Your task to perform on an android device: turn off improve location accuracy Image 0: 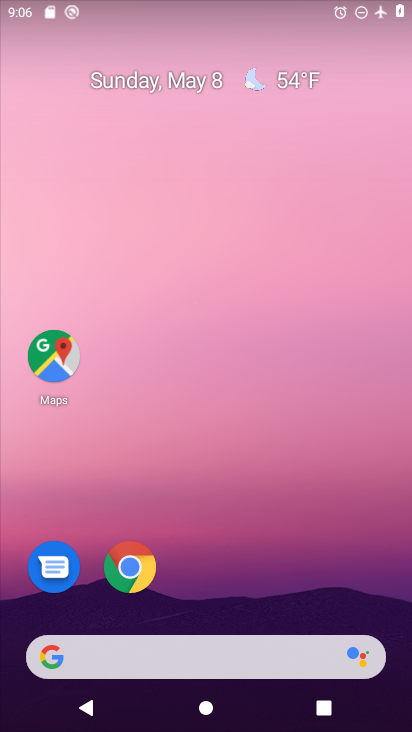
Step 0: drag from (350, 559) to (363, 177)
Your task to perform on an android device: turn off improve location accuracy Image 1: 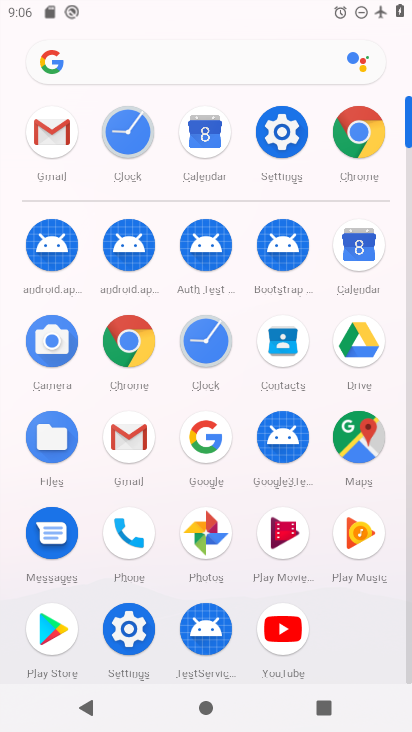
Step 1: click (280, 136)
Your task to perform on an android device: turn off improve location accuracy Image 2: 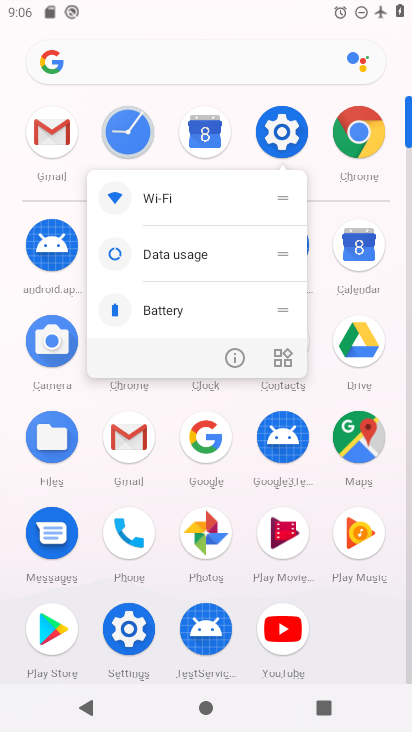
Step 2: click (280, 136)
Your task to perform on an android device: turn off improve location accuracy Image 3: 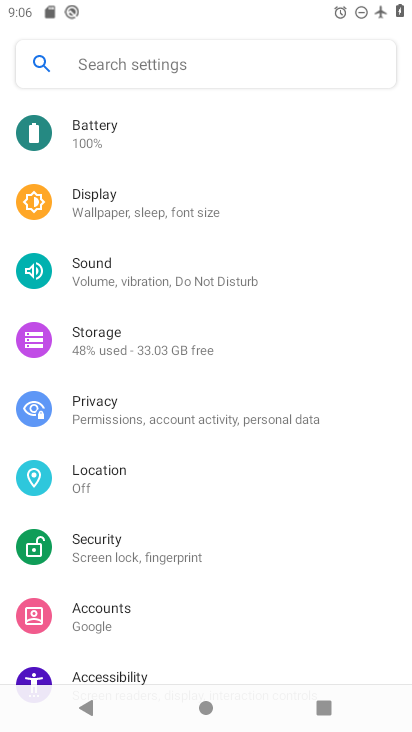
Step 3: click (94, 482)
Your task to perform on an android device: turn off improve location accuracy Image 4: 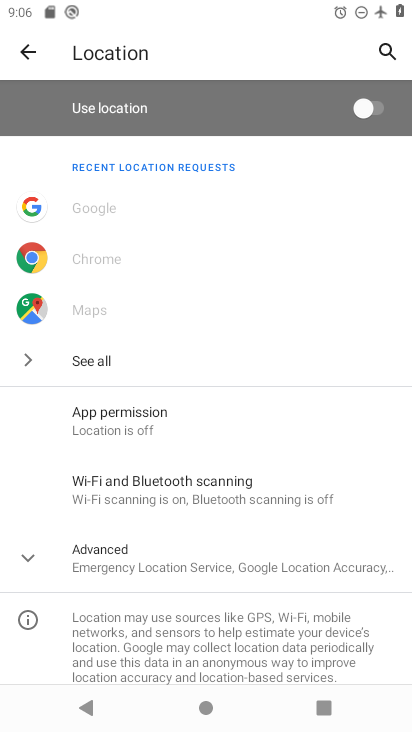
Step 4: drag from (154, 606) to (139, 296)
Your task to perform on an android device: turn off improve location accuracy Image 5: 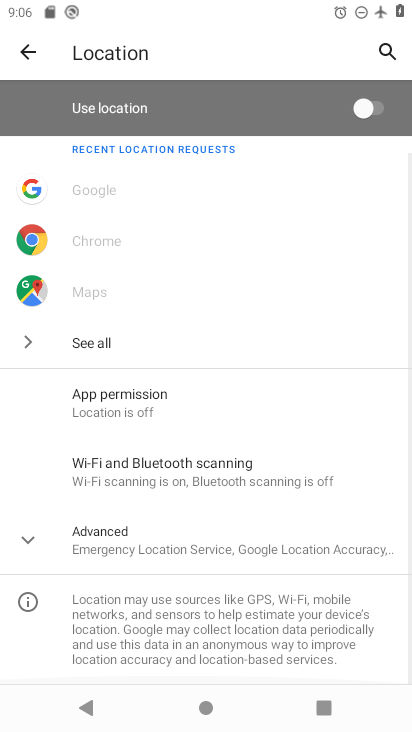
Step 5: click (190, 577)
Your task to perform on an android device: turn off improve location accuracy Image 6: 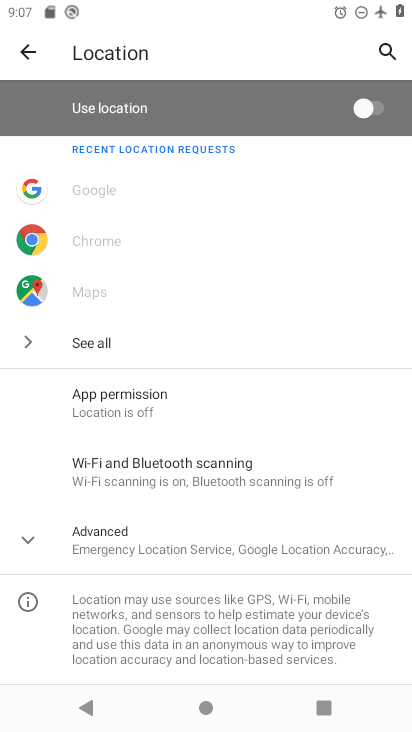
Step 6: click (131, 544)
Your task to perform on an android device: turn off improve location accuracy Image 7: 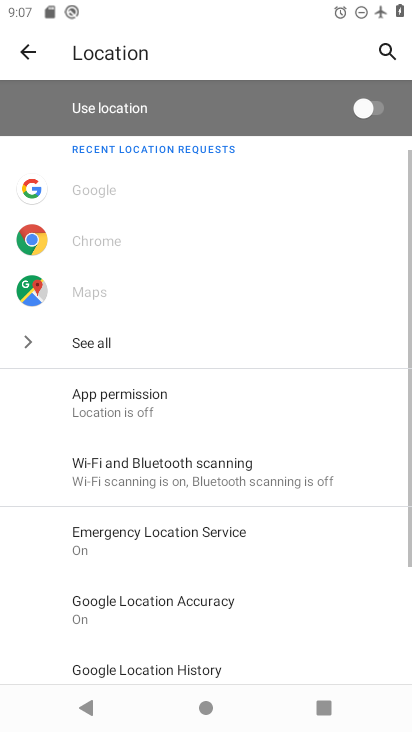
Step 7: drag from (167, 614) to (126, 332)
Your task to perform on an android device: turn off improve location accuracy Image 8: 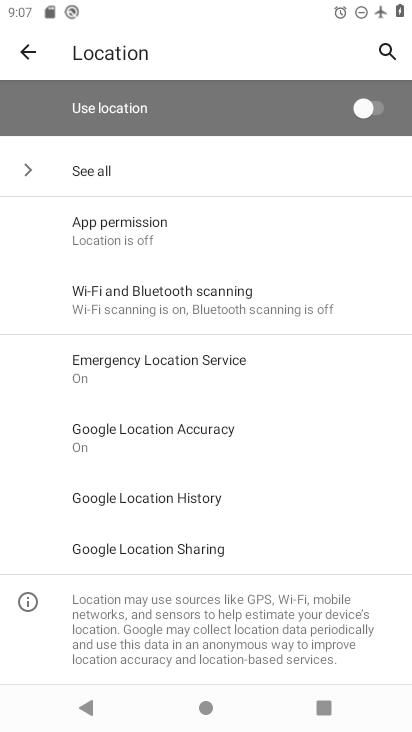
Step 8: click (135, 434)
Your task to perform on an android device: turn off improve location accuracy Image 9: 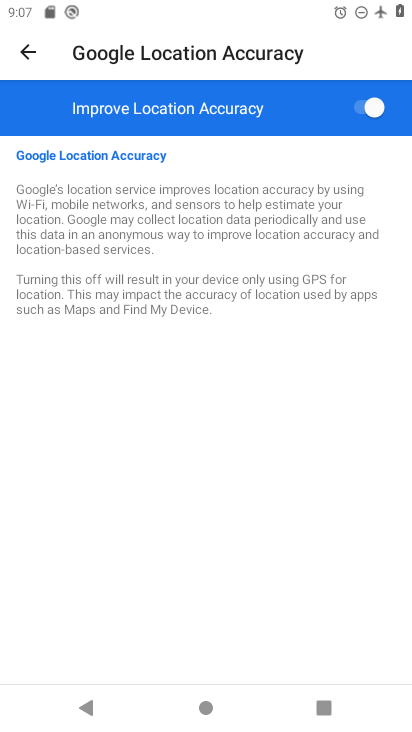
Step 9: click (369, 115)
Your task to perform on an android device: turn off improve location accuracy Image 10: 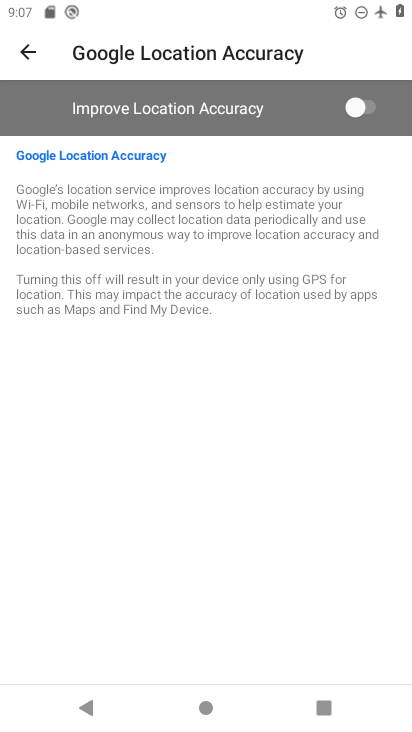
Step 10: task complete